Your task to perform on an android device: change the clock style Image 0: 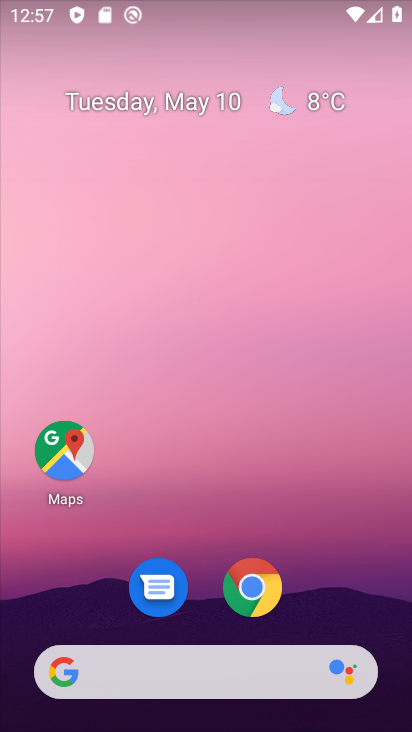
Step 0: drag from (315, 510) to (235, 32)
Your task to perform on an android device: change the clock style Image 1: 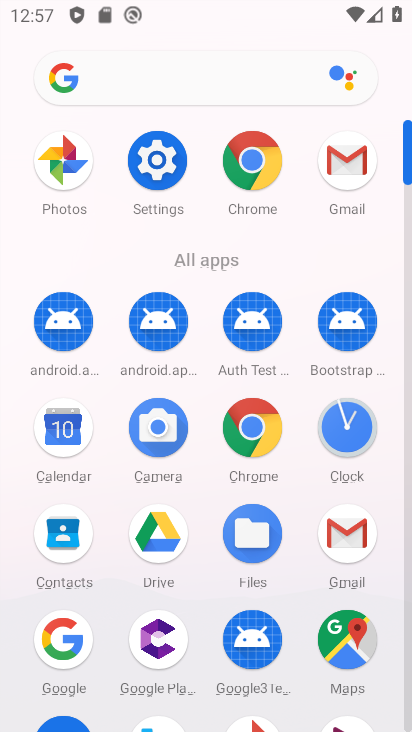
Step 1: click (347, 419)
Your task to perform on an android device: change the clock style Image 2: 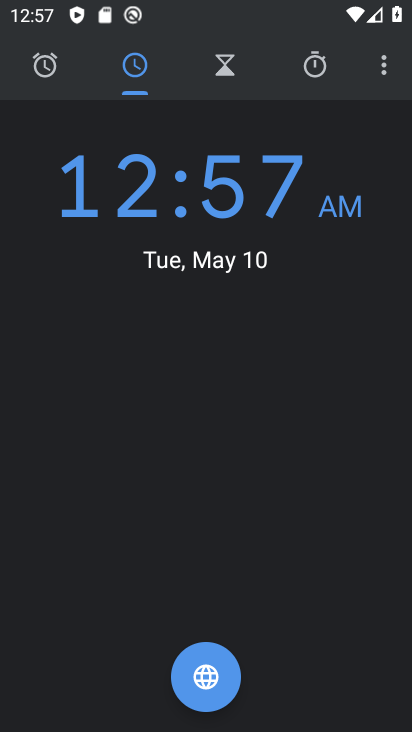
Step 2: click (383, 70)
Your task to perform on an android device: change the clock style Image 3: 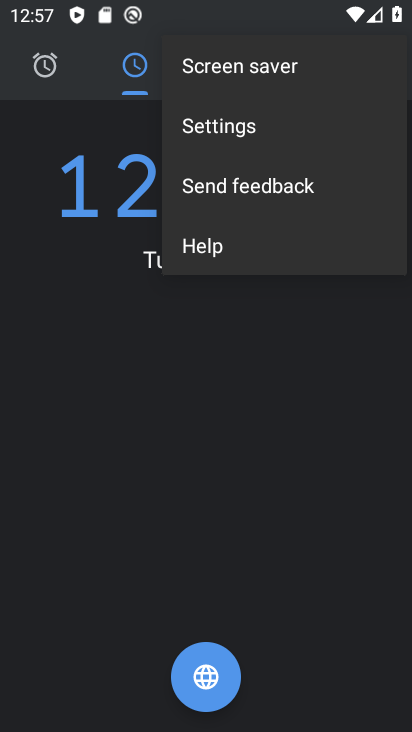
Step 3: click (210, 117)
Your task to perform on an android device: change the clock style Image 4: 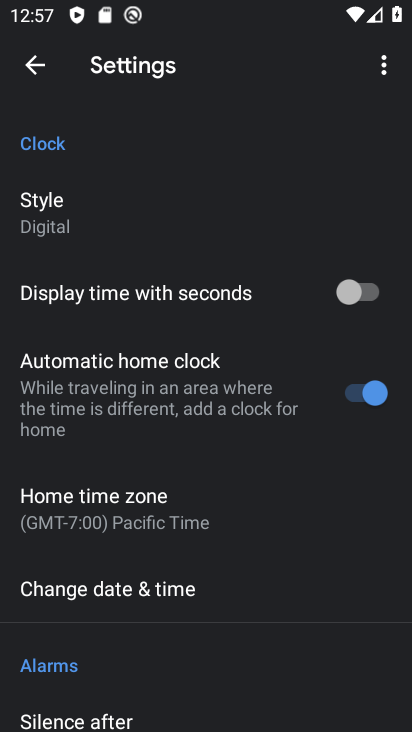
Step 4: click (89, 199)
Your task to perform on an android device: change the clock style Image 5: 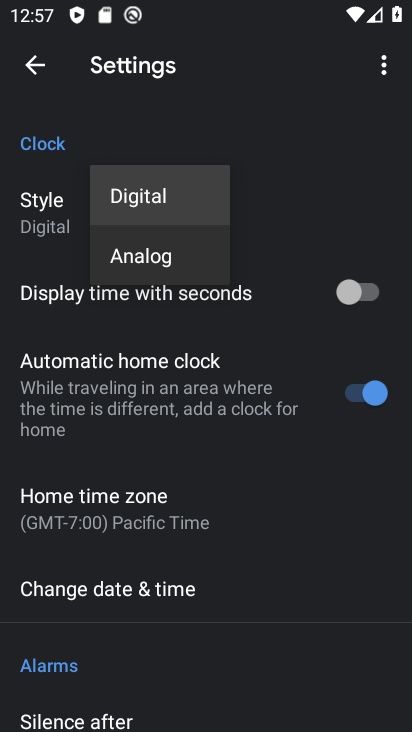
Step 5: click (144, 262)
Your task to perform on an android device: change the clock style Image 6: 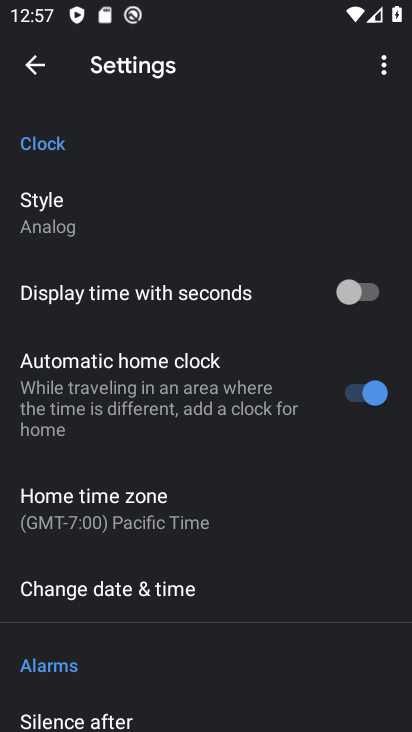
Step 6: task complete